Your task to perform on an android device: Go to eBay Image 0: 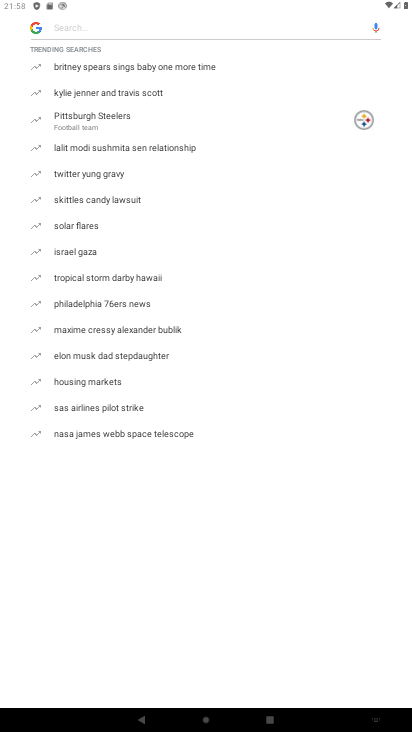
Step 0: press home button
Your task to perform on an android device: Go to eBay Image 1: 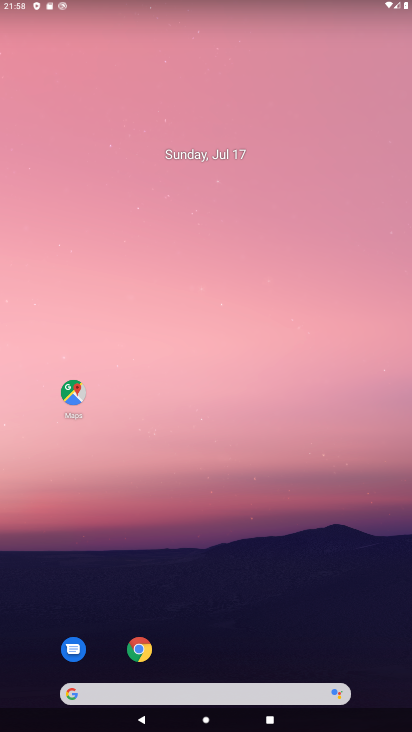
Step 1: click (137, 693)
Your task to perform on an android device: Go to eBay Image 2: 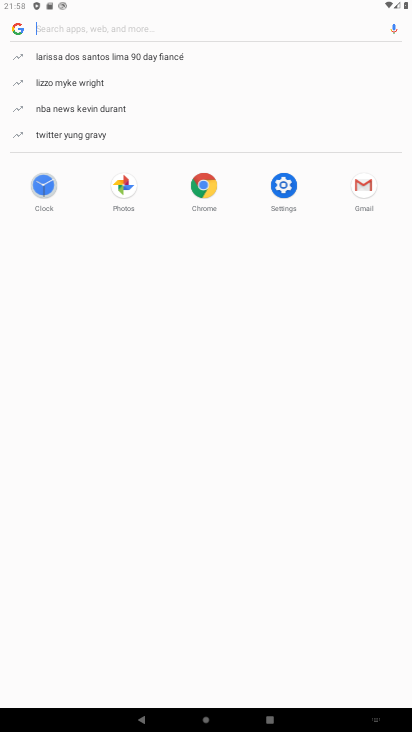
Step 2: type "eBay"
Your task to perform on an android device: Go to eBay Image 3: 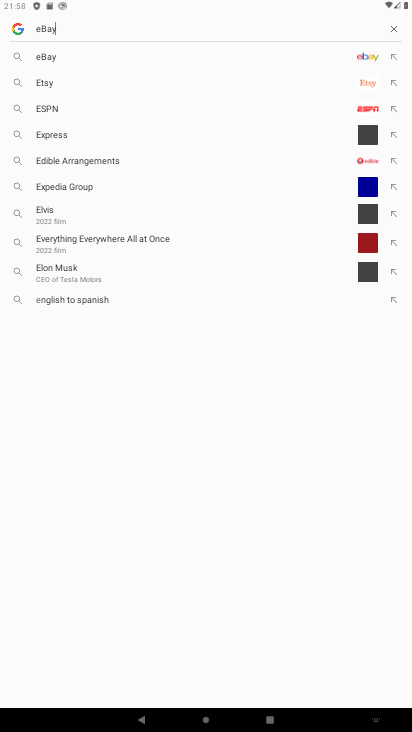
Step 3: type ""
Your task to perform on an android device: Go to eBay Image 4: 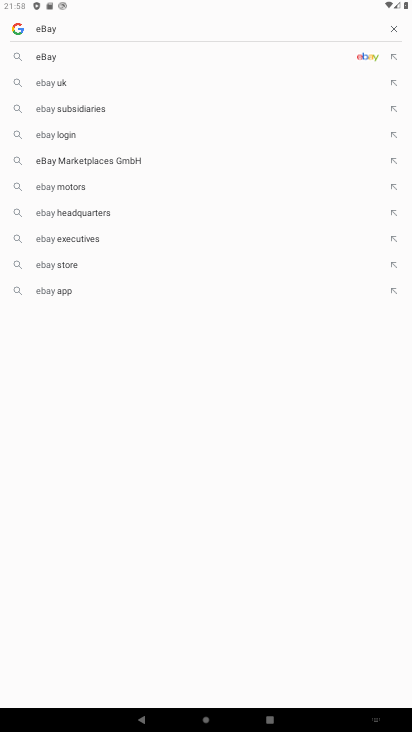
Step 4: click (45, 58)
Your task to perform on an android device: Go to eBay Image 5: 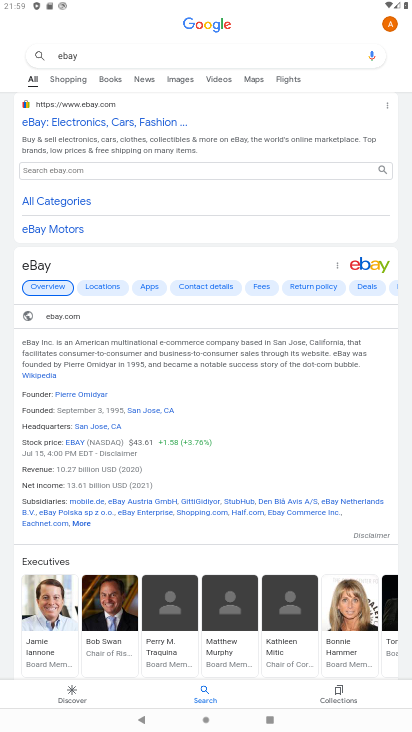
Step 5: task complete